Your task to perform on an android device: Open Reddit.com Image 0: 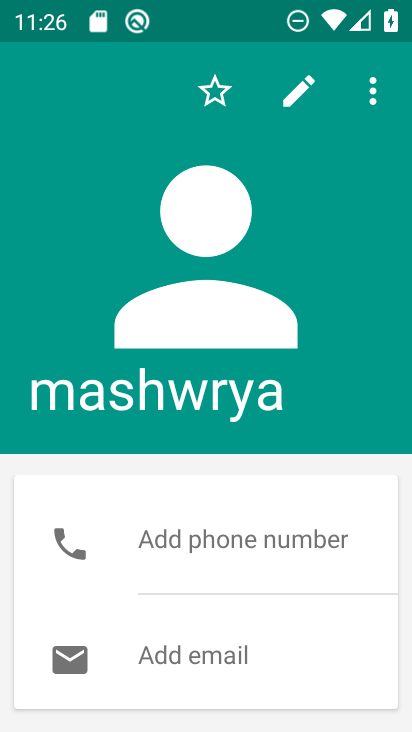
Step 0: drag from (338, 492) to (356, 144)
Your task to perform on an android device: Open Reddit.com Image 1: 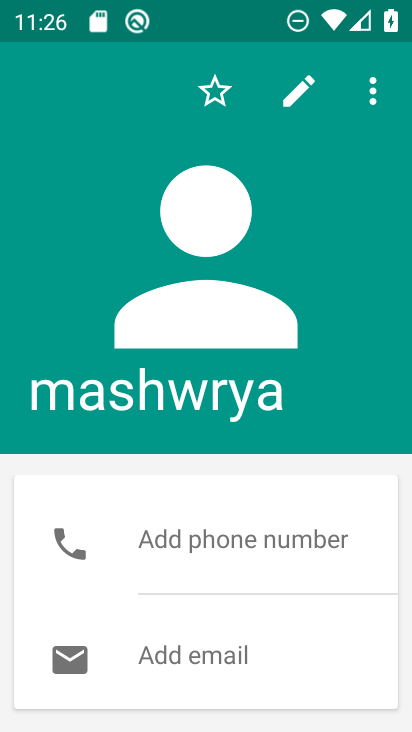
Step 1: press home button
Your task to perform on an android device: Open Reddit.com Image 2: 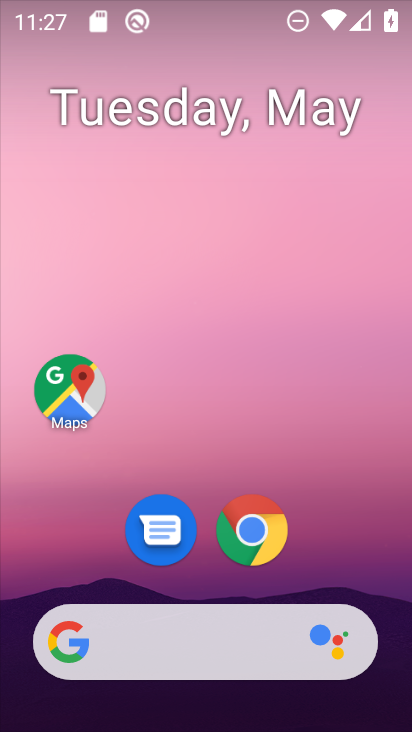
Step 2: click (257, 528)
Your task to perform on an android device: Open Reddit.com Image 3: 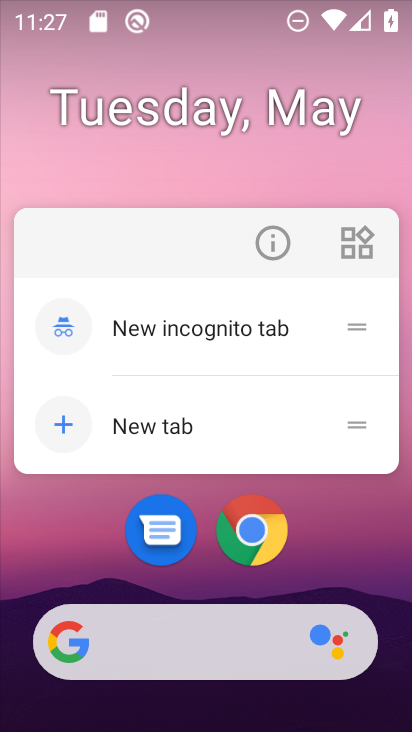
Step 3: click (249, 528)
Your task to perform on an android device: Open Reddit.com Image 4: 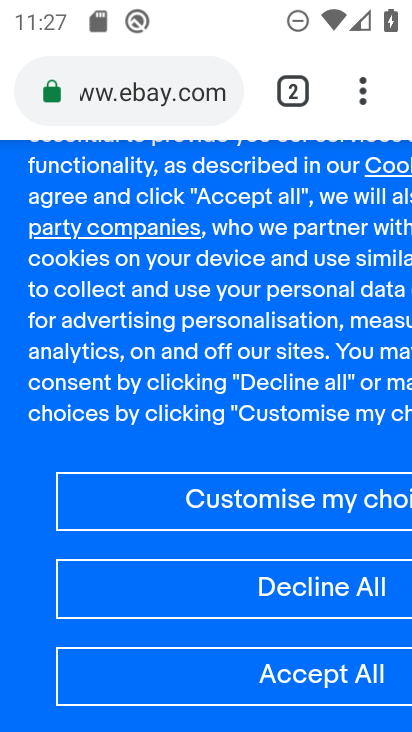
Step 4: click (137, 82)
Your task to perform on an android device: Open Reddit.com Image 5: 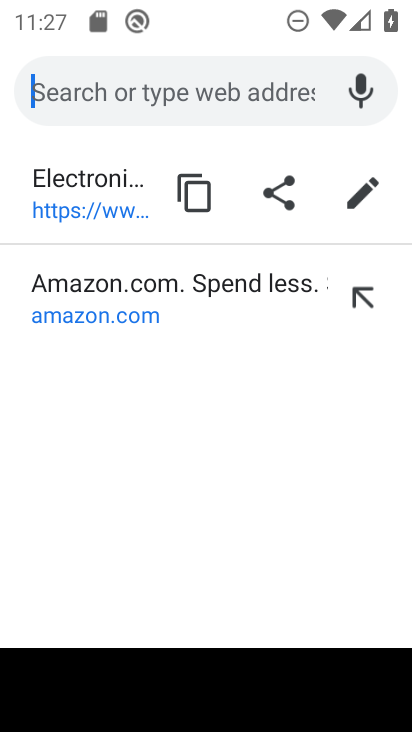
Step 5: type "reddit.com"
Your task to perform on an android device: Open Reddit.com Image 6: 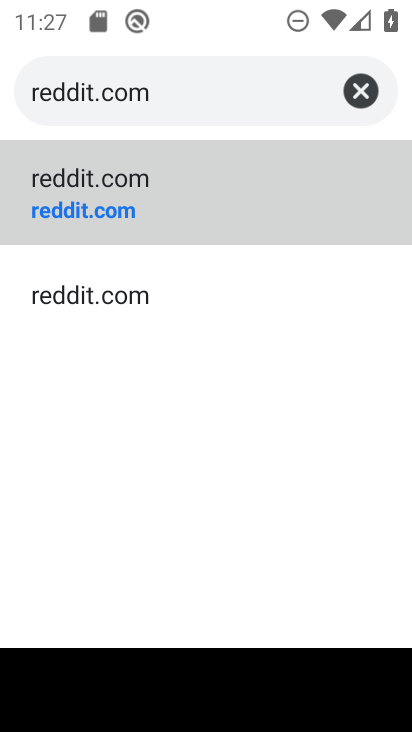
Step 6: click (77, 221)
Your task to perform on an android device: Open Reddit.com Image 7: 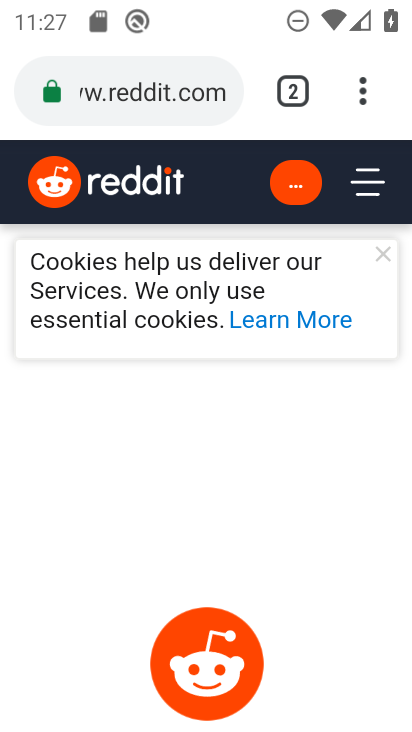
Step 7: task complete